Your task to perform on an android device: Open internet settings Image 0: 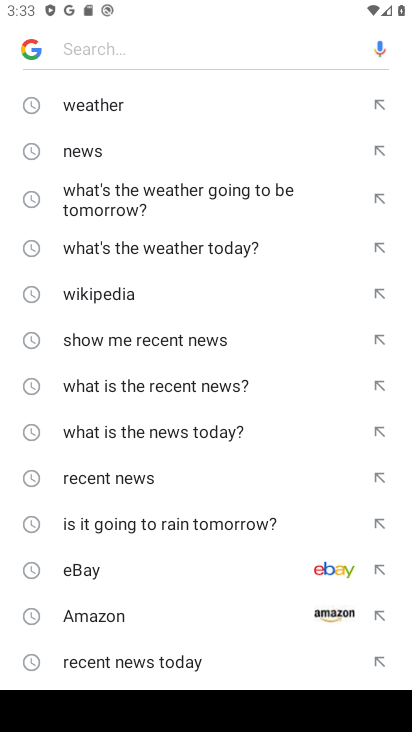
Step 0: press home button
Your task to perform on an android device: Open internet settings Image 1: 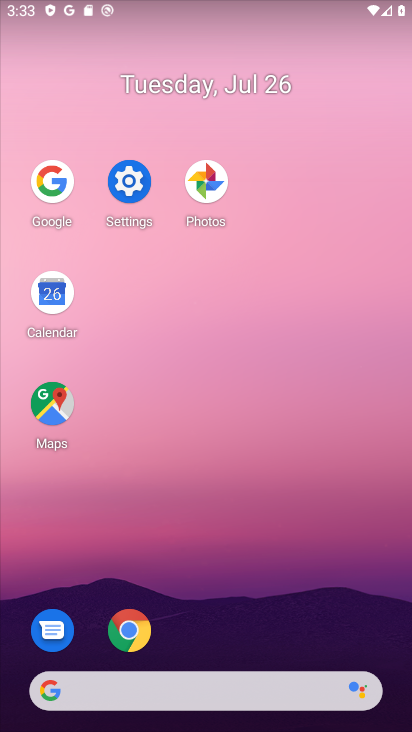
Step 1: click (120, 193)
Your task to perform on an android device: Open internet settings Image 2: 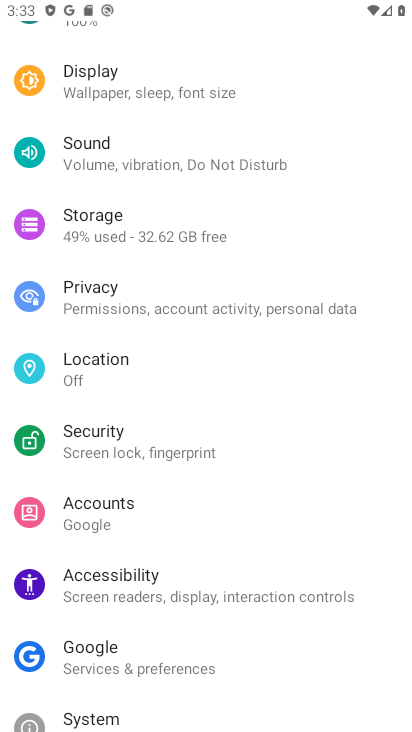
Step 2: drag from (198, 105) to (281, 369)
Your task to perform on an android device: Open internet settings Image 3: 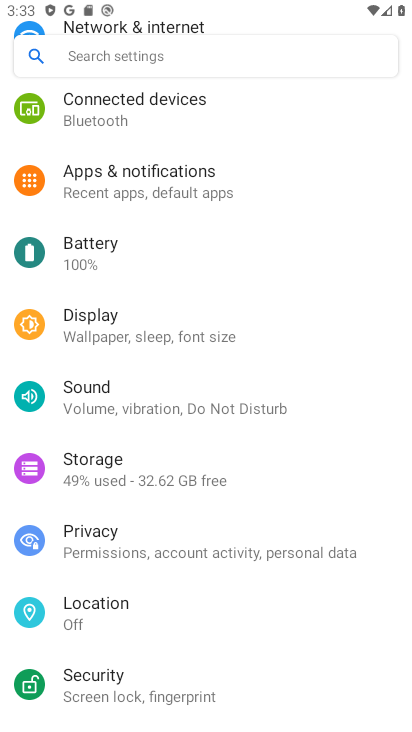
Step 3: drag from (319, 163) to (261, 418)
Your task to perform on an android device: Open internet settings Image 4: 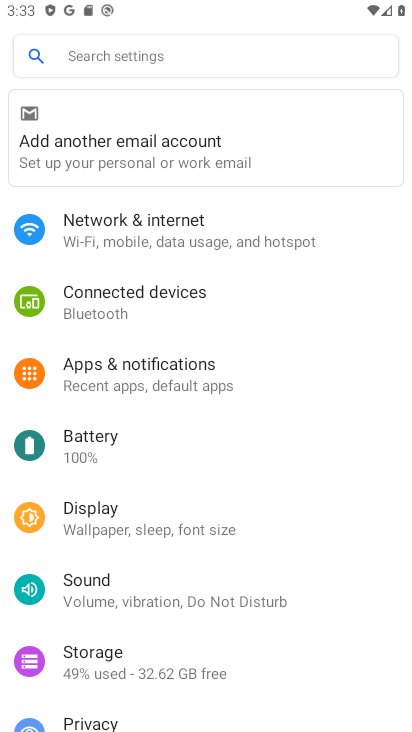
Step 4: click (152, 213)
Your task to perform on an android device: Open internet settings Image 5: 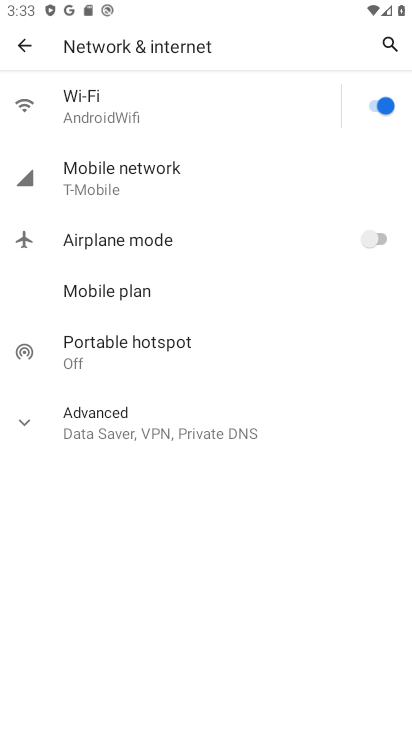
Step 5: task complete